Your task to perform on an android device: Go to sound settings Image 0: 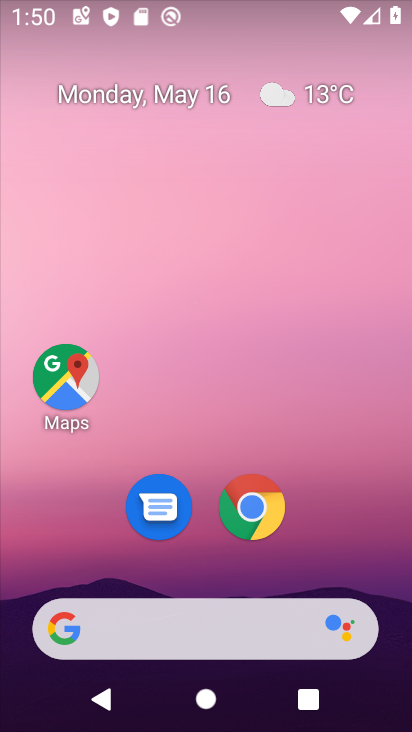
Step 0: drag from (370, 560) to (348, 64)
Your task to perform on an android device: Go to sound settings Image 1: 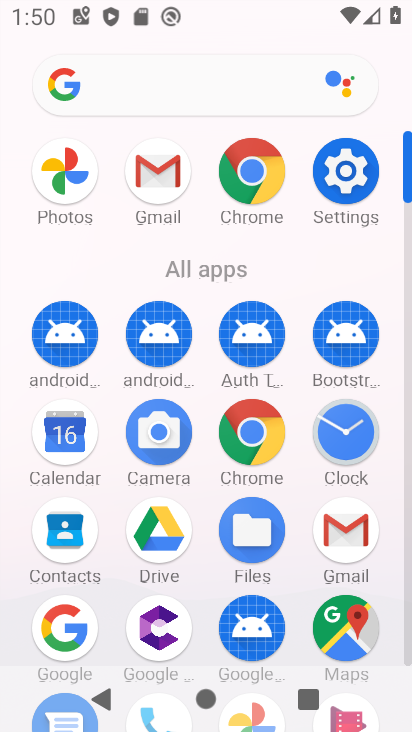
Step 1: click (350, 174)
Your task to perform on an android device: Go to sound settings Image 2: 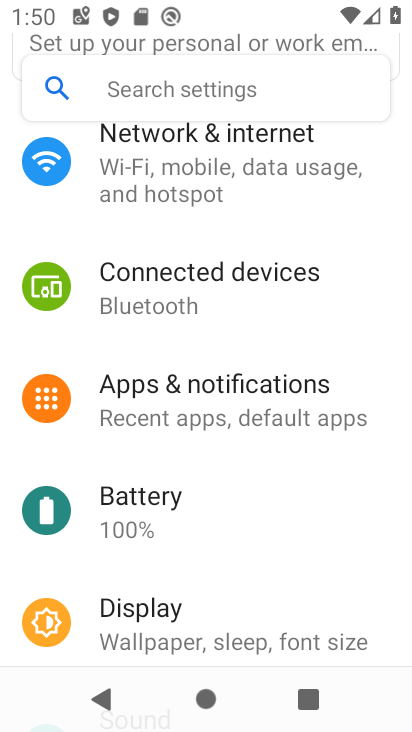
Step 2: drag from (353, 572) to (360, 377)
Your task to perform on an android device: Go to sound settings Image 3: 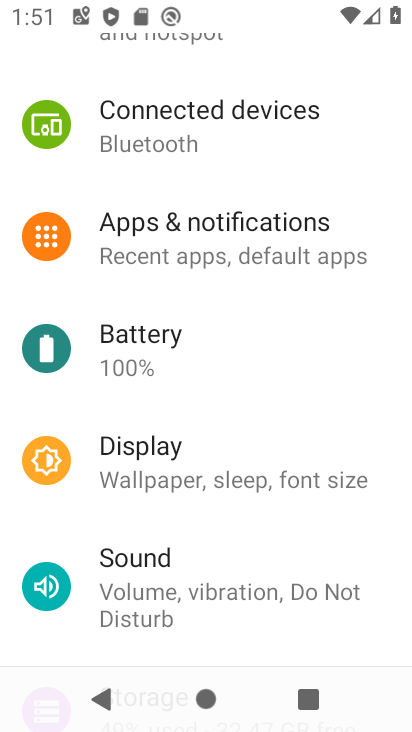
Step 3: drag from (360, 634) to (369, 419)
Your task to perform on an android device: Go to sound settings Image 4: 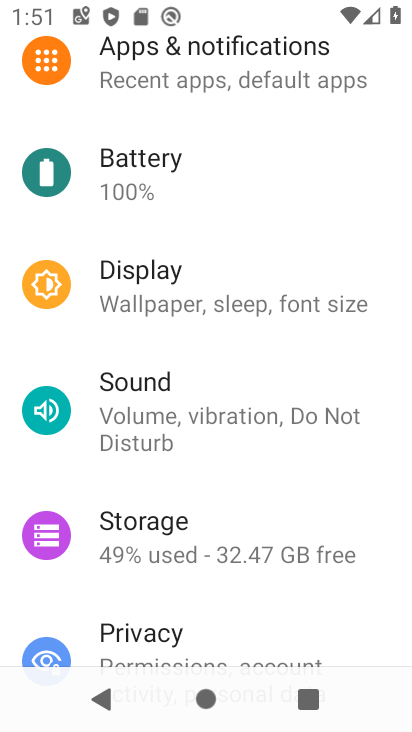
Step 4: drag from (338, 636) to (358, 390)
Your task to perform on an android device: Go to sound settings Image 5: 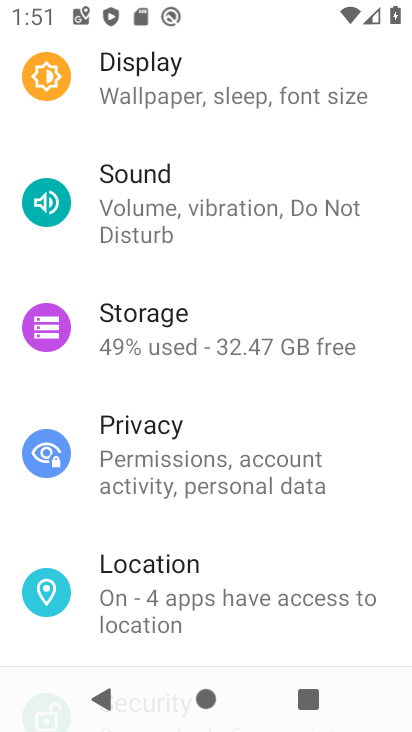
Step 5: drag from (342, 634) to (342, 489)
Your task to perform on an android device: Go to sound settings Image 6: 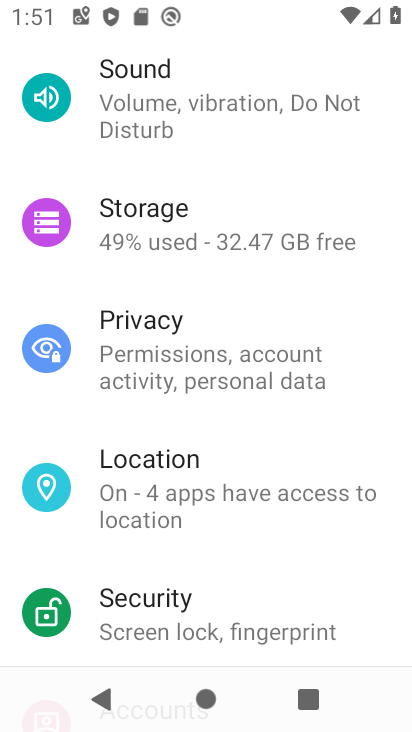
Step 6: drag from (338, 156) to (344, 320)
Your task to perform on an android device: Go to sound settings Image 7: 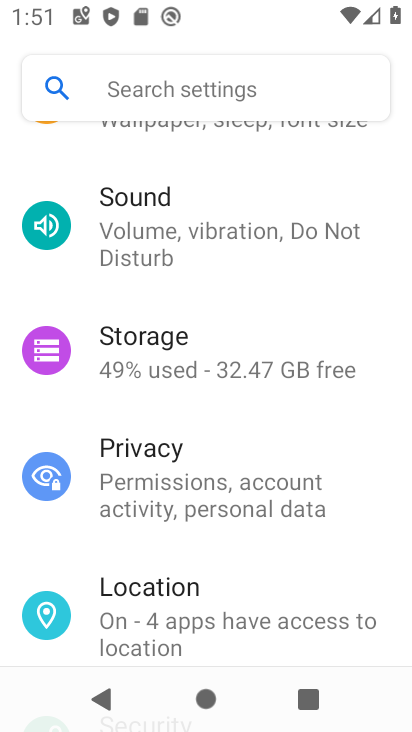
Step 7: click (221, 234)
Your task to perform on an android device: Go to sound settings Image 8: 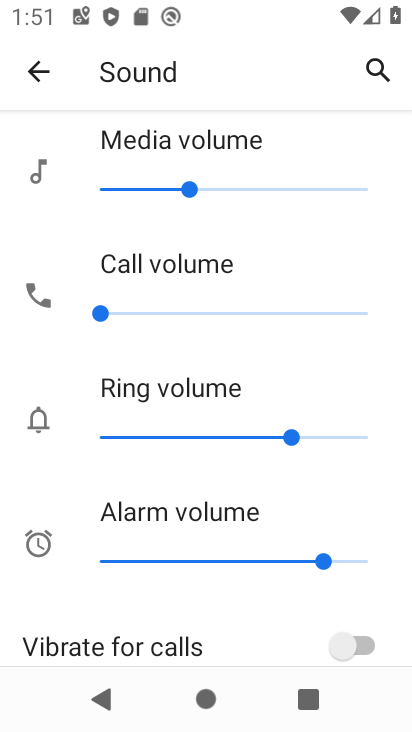
Step 8: task complete